Your task to perform on an android device: Open maps Image 0: 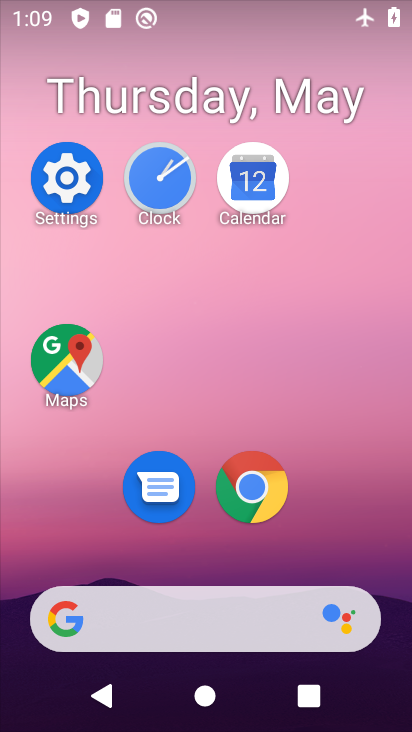
Step 0: click (70, 370)
Your task to perform on an android device: Open maps Image 1: 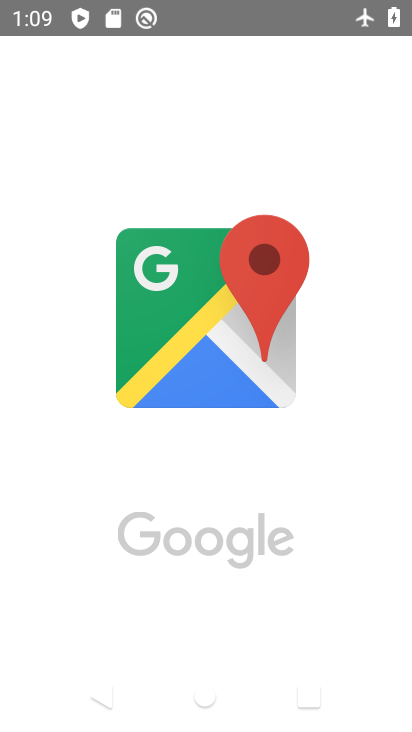
Step 1: task complete